Your task to perform on an android device: move a message to another label in the gmail app Image 0: 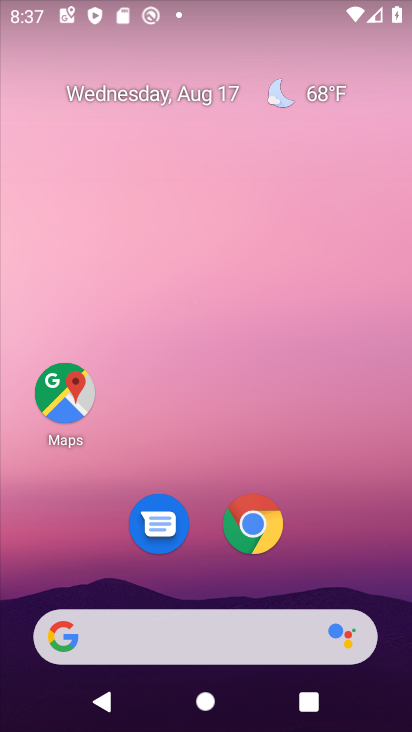
Step 0: drag from (327, 505) to (361, 15)
Your task to perform on an android device: move a message to another label in the gmail app Image 1: 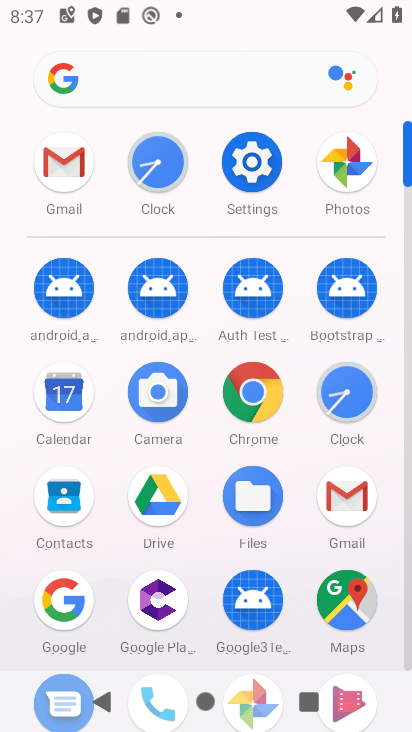
Step 1: click (341, 481)
Your task to perform on an android device: move a message to another label in the gmail app Image 2: 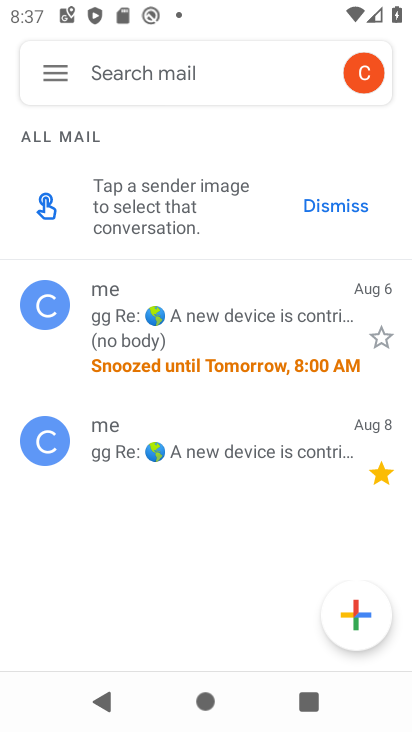
Step 2: click (253, 441)
Your task to perform on an android device: move a message to another label in the gmail app Image 3: 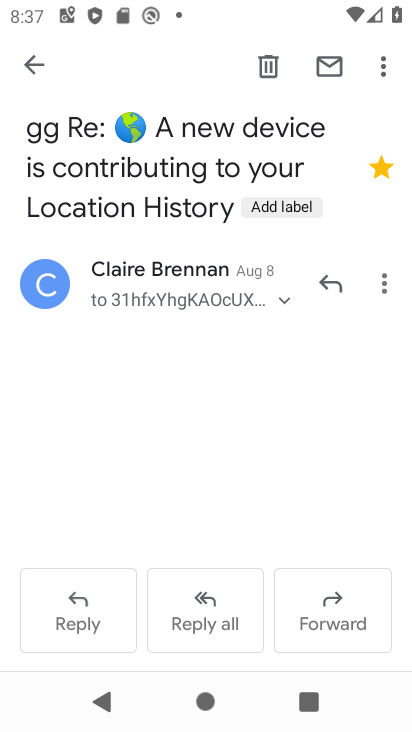
Step 3: click (383, 60)
Your task to perform on an android device: move a message to another label in the gmail app Image 4: 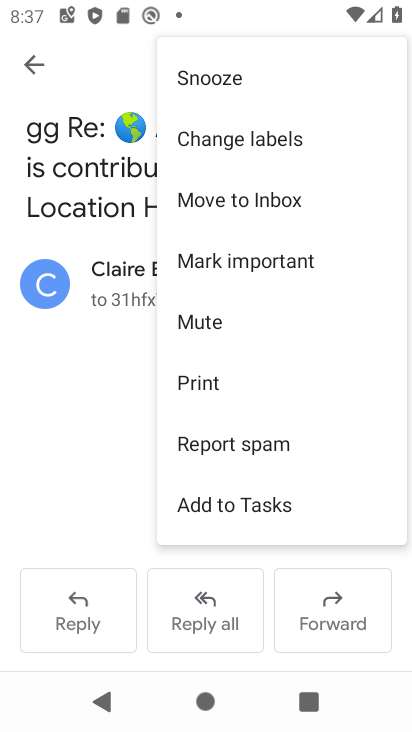
Step 4: click (291, 141)
Your task to perform on an android device: move a message to another label in the gmail app Image 5: 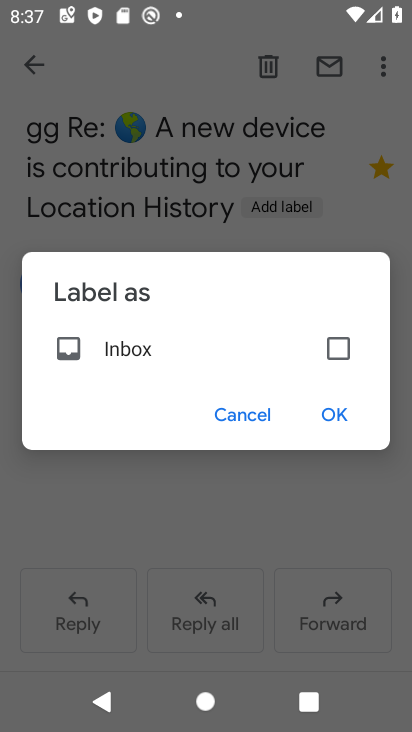
Step 5: click (339, 341)
Your task to perform on an android device: move a message to another label in the gmail app Image 6: 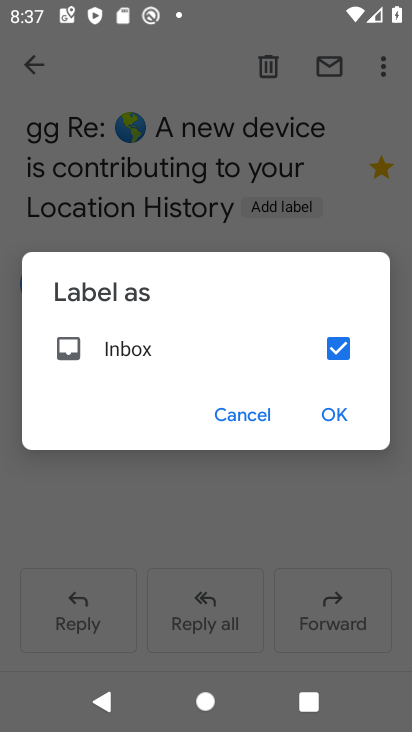
Step 6: click (335, 410)
Your task to perform on an android device: move a message to another label in the gmail app Image 7: 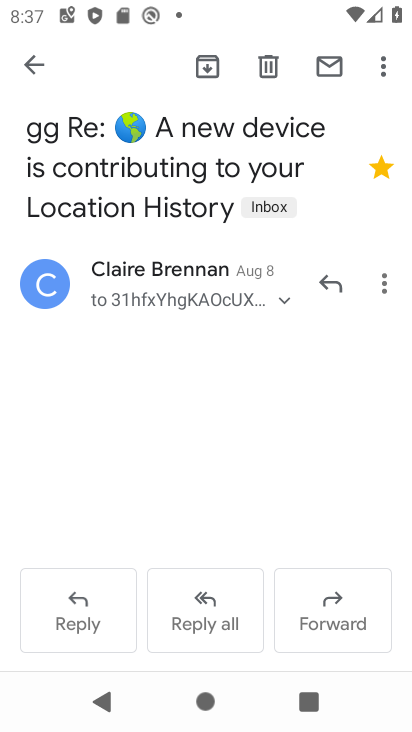
Step 7: task complete